Your task to perform on an android device: When is my next meeting? Image 0: 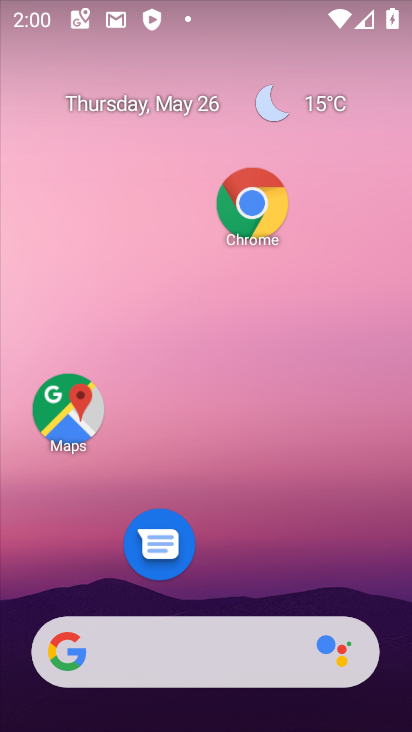
Step 0: drag from (197, 711) to (238, 48)
Your task to perform on an android device: When is my next meeting? Image 1: 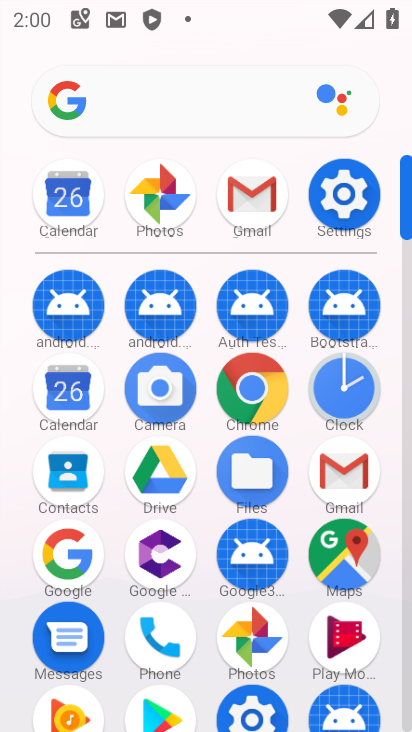
Step 1: click (68, 212)
Your task to perform on an android device: When is my next meeting? Image 2: 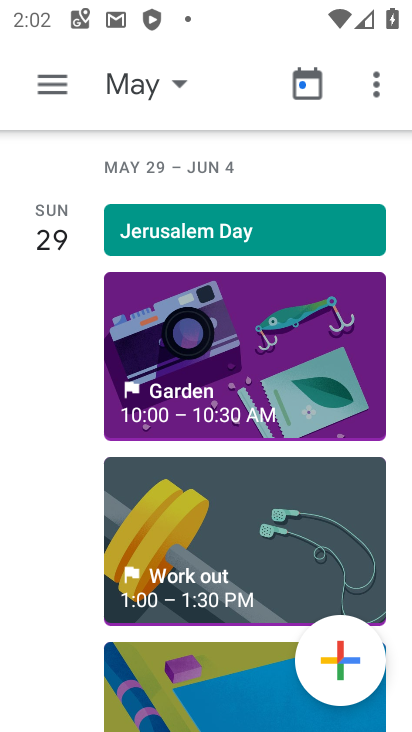
Step 2: task complete